Your task to perform on an android device: Open battery settings Image 0: 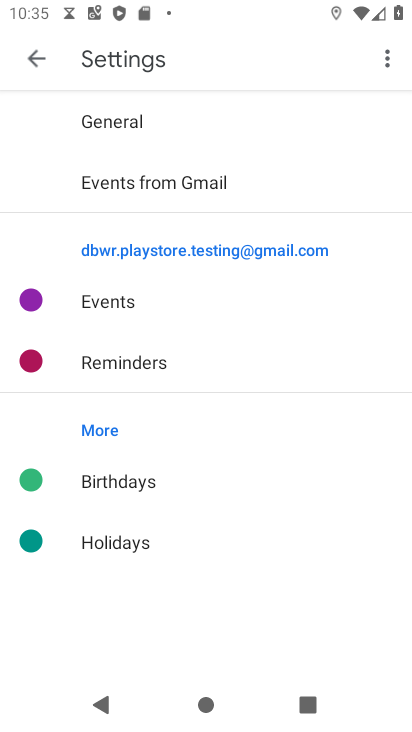
Step 0: drag from (270, 553) to (85, 89)
Your task to perform on an android device: Open battery settings Image 1: 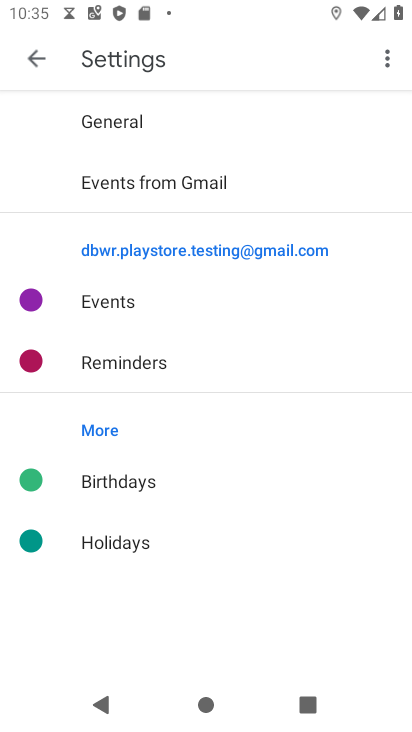
Step 1: press home button
Your task to perform on an android device: Open battery settings Image 2: 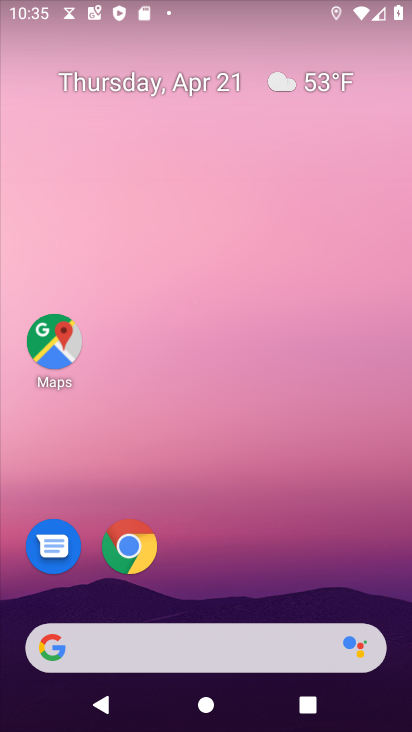
Step 2: drag from (217, 583) to (187, 98)
Your task to perform on an android device: Open battery settings Image 3: 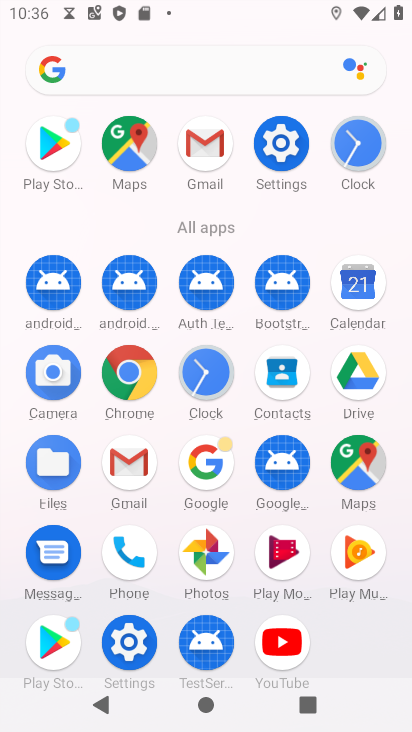
Step 3: click (292, 170)
Your task to perform on an android device: Open battery settings Image 4: 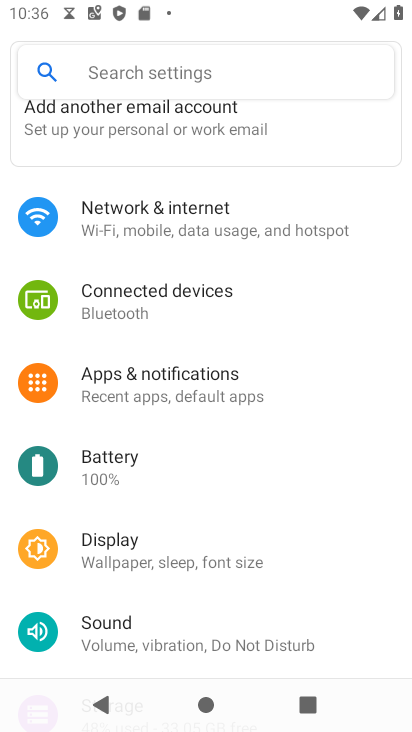
Step 4: drag from (165, 591) to (201, 373)
Your task to perform on an android device: Open battery settings Image 5: 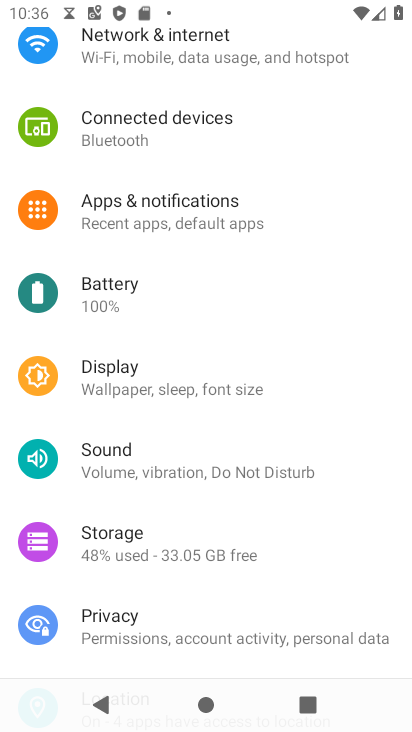
Step 5: click (99, 298)
Your task to perform on an android device: Open battery settings Image 6: 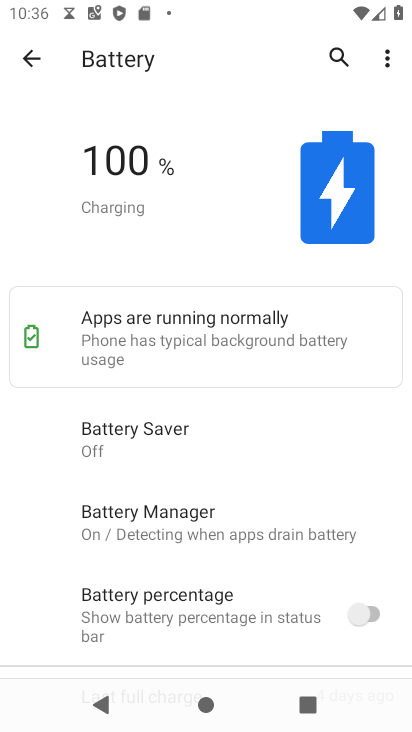
Step 6: task complete